Your task to perform on an android device: find snoozed emails in the gmail app Image 0: 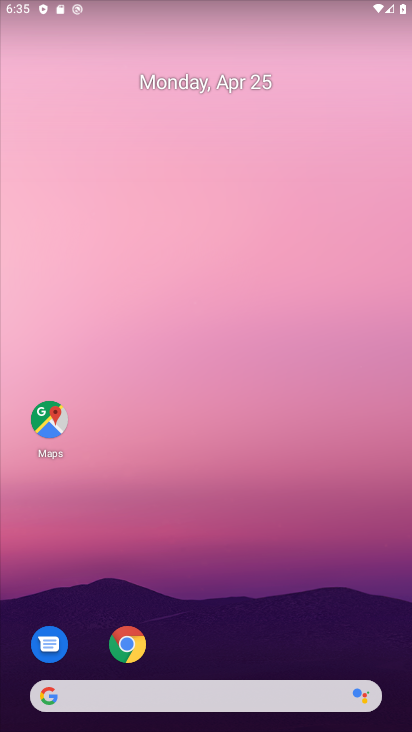
Step 0: drag from (276, 641) to (232, 128)
Your task to perform on an android device: find snoozed emails in the gmail app Image 1: 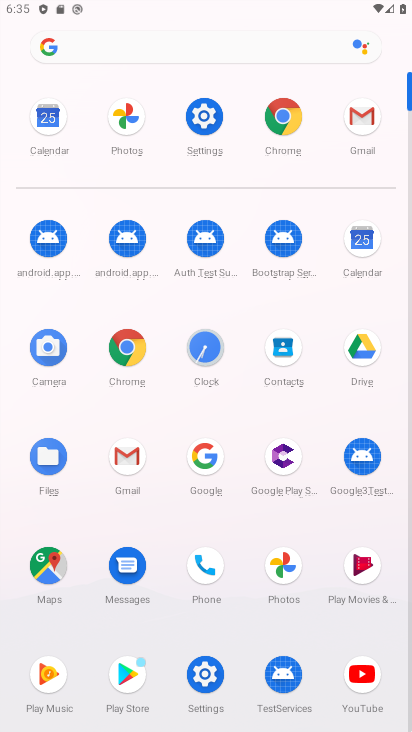
Step 1: click (122, 451)
Your task to perform on an android device: find snoozed emails in the gmail app Image 2: 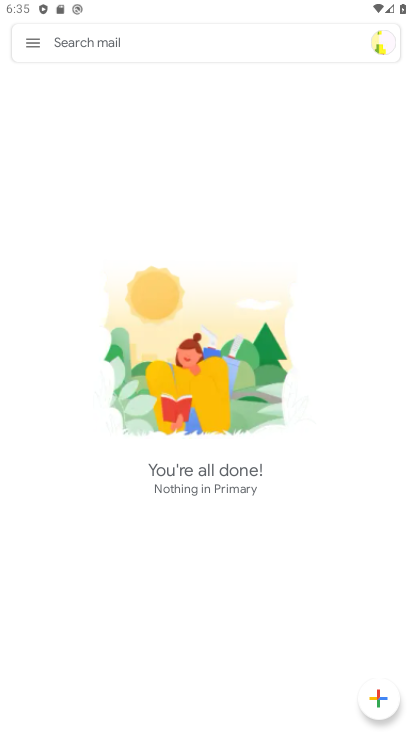
Step 2: click (35, 40)
Your task to perform on an android device: find snoozed emails in the gmail app Image 3: 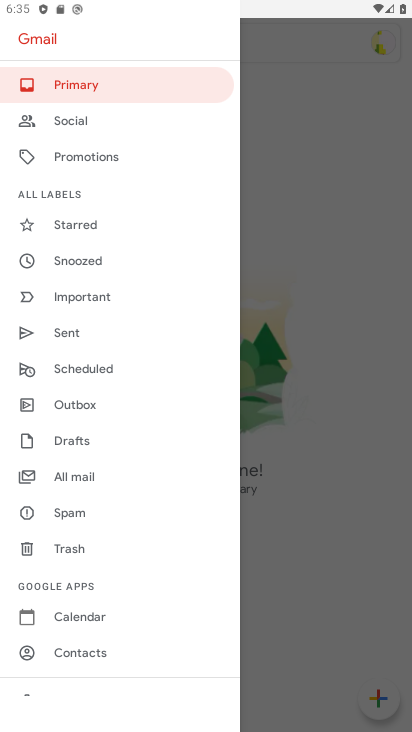
Step 3: drag from (113, 620) to (98, 329)
Your task to perform on an android device: find snoozed emails in the gmail app Image 4: 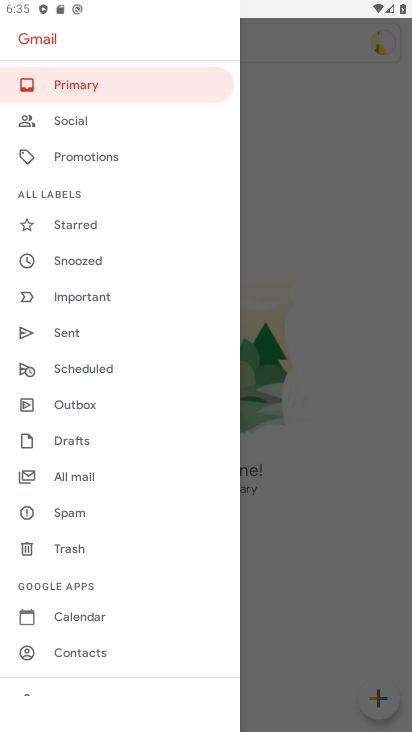
Step 4: drag from (97, 613) to (97, 312)
Your task to perform on an android device: find snoozed emails in the gmail app Image 5: 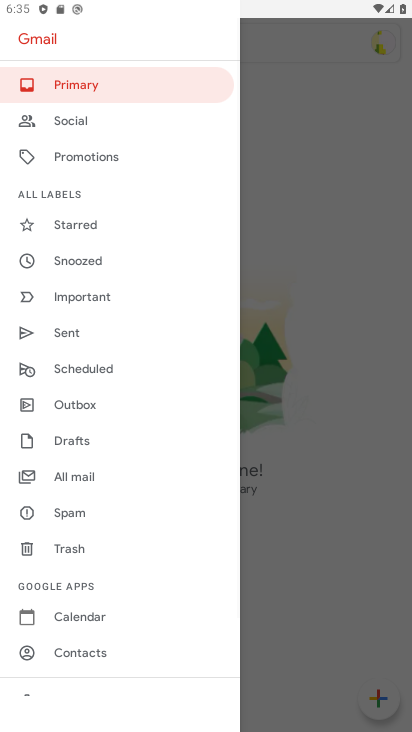
Step 5: drag from (82, 624) to (114, 209)
Your task to perform on an android device: find snoozed emails in the gmail app Image 6: 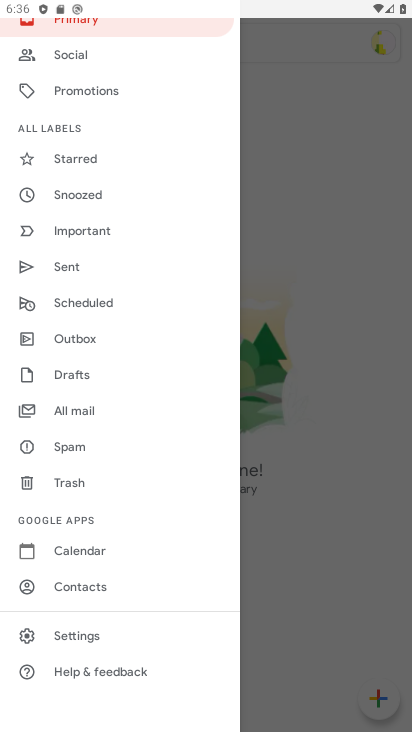
Step 6: click (91, 198)
Your task to perform on an android device: find snoozed emails in the gmail app Image 7: 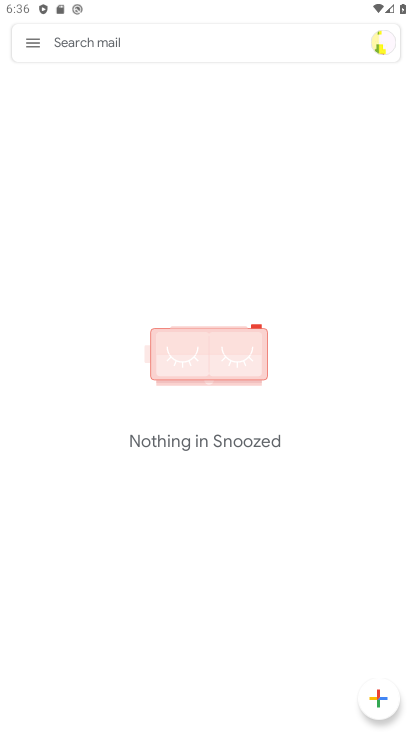
Step 7: task complete